Your task to perform on an android device: check storage Image 0: 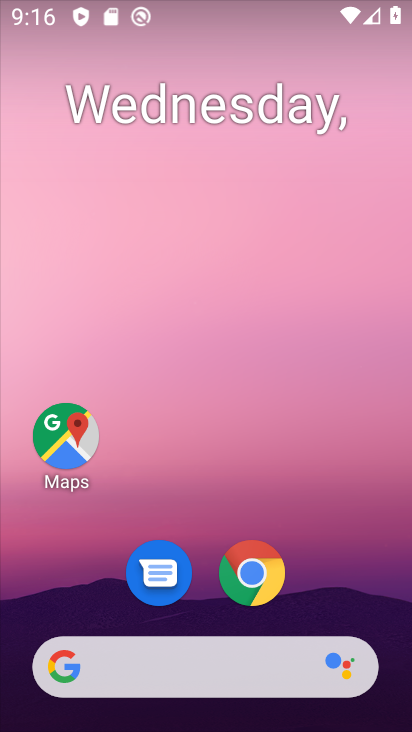
Step 0: drag from (312, 555) to (263, 189)
Your task to perform on an android device: check storage Image 1: 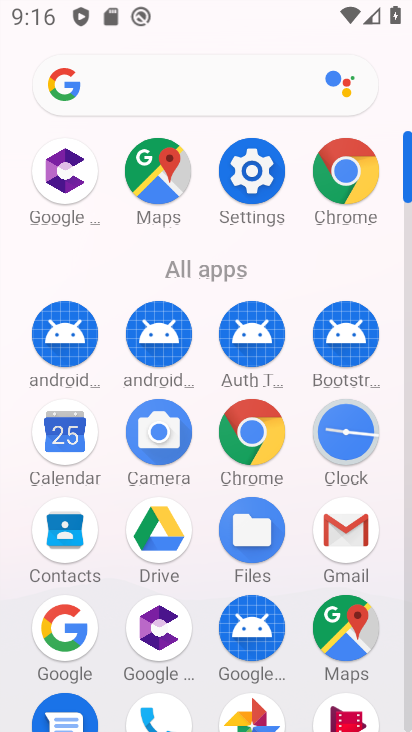
Step 1: click (244, 184)
Your task to perform on an android device: check storage Image 2: 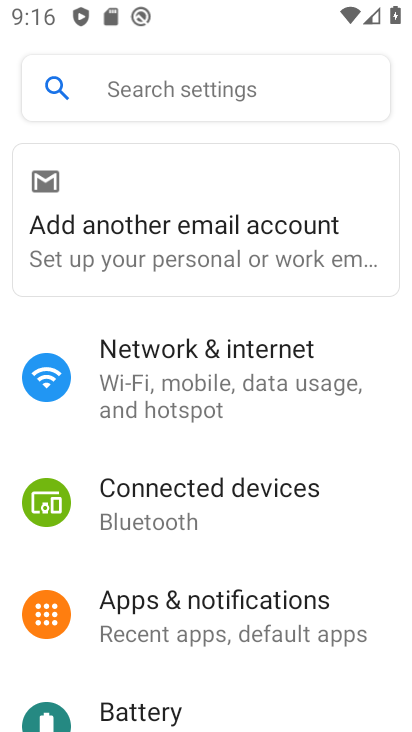
Step 2: drag from (185, 595) to (220, 269)
Your task to perform on an android device: check storage Image 3: 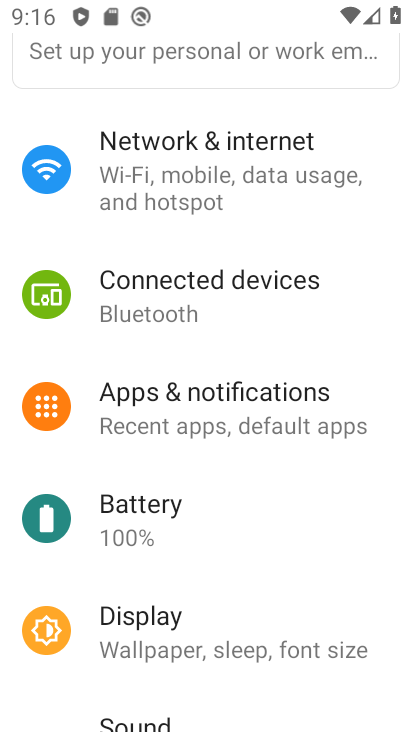
Step 3: drag from (186, 659) to (238, 333)
Your task to perform on an android device: check storage Image 4: 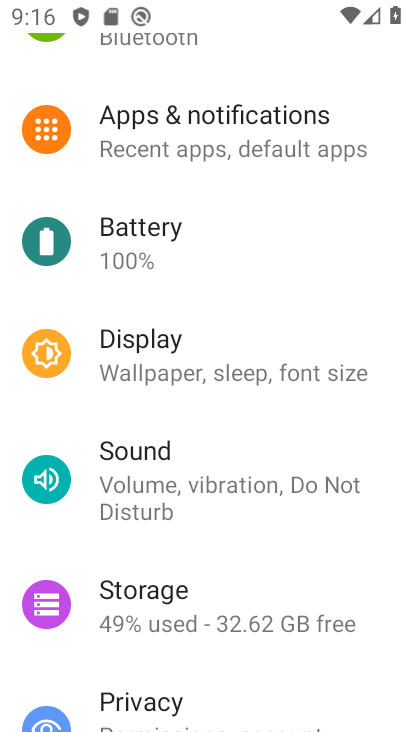
Step 4: click (161, 596)
Your task to perform on an android device: check storage Image 5: 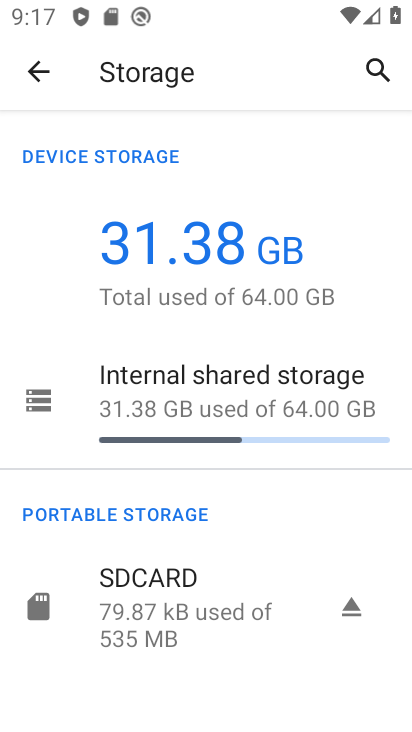
Step 5: task complete